Your task to perform on an android device: check android version Image 0: 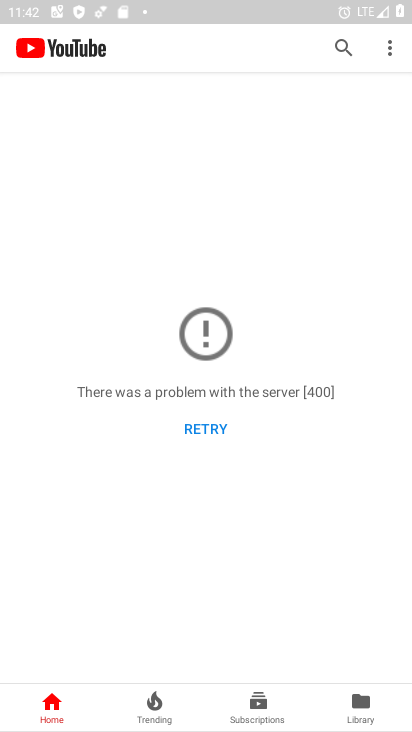
Step 0: press home button
Your task to perform on an android device: check android version Image 1: 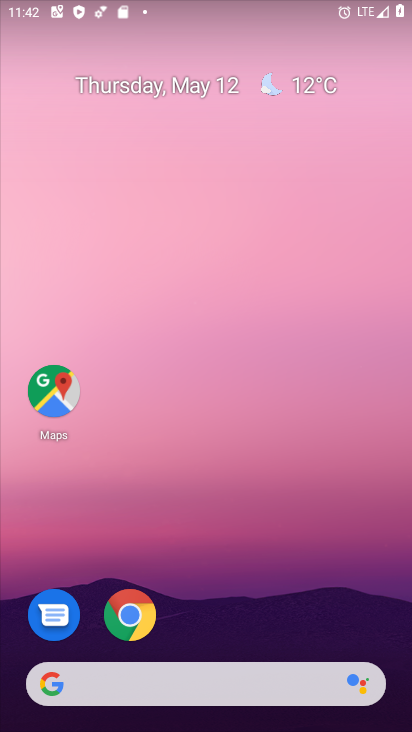
Step 1: drag from (297, 595) to (300, 103)
Your task to perform on an android device: check android version Image 2: 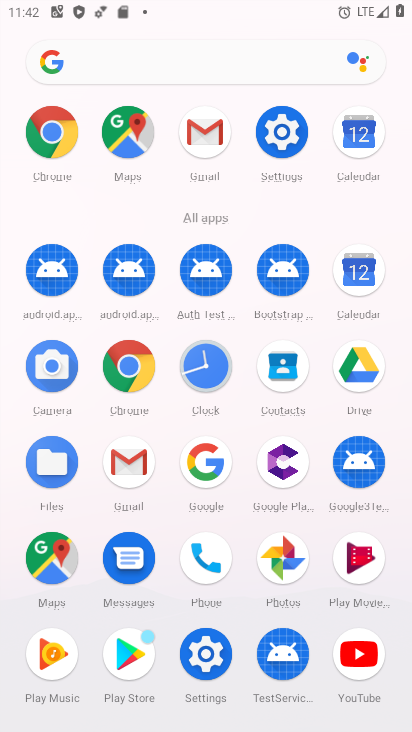
Step 2: click (286, 122)
Your task to perform on an android device: check android version Image 3: 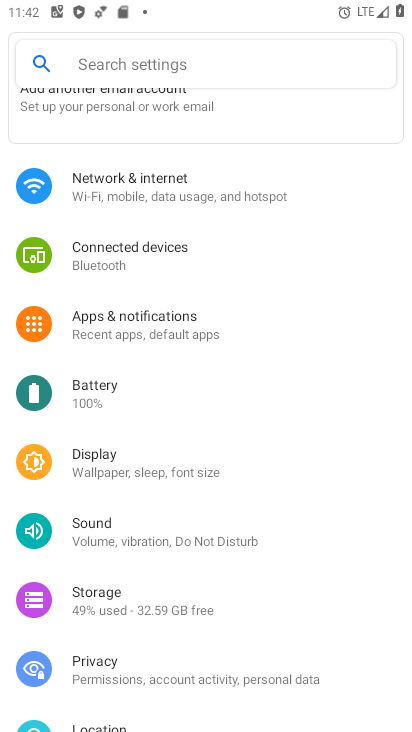
Step 3: drag from (268, 571) to (286, 0)
Your task to perform on an android device: check android version Image 4: 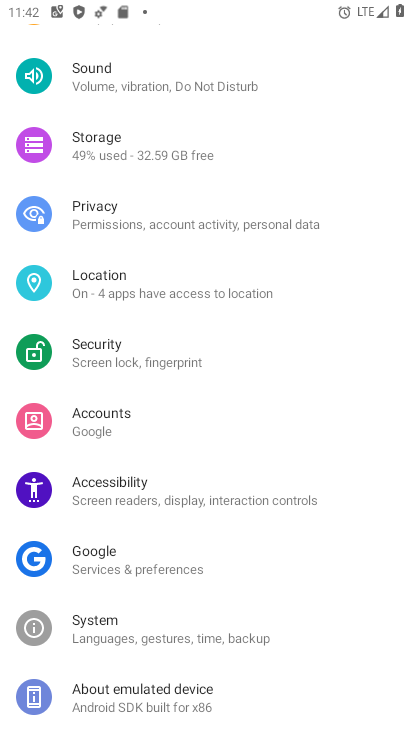
Step 4: click (171, 707)
Your task to perform on an android device: check android version Image 5: 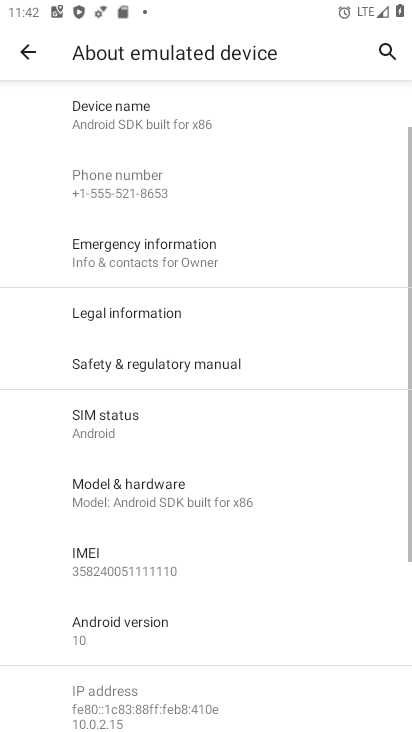
Step 5: click (149, 635)
Your task to perform on an android device: check android version Image 6: 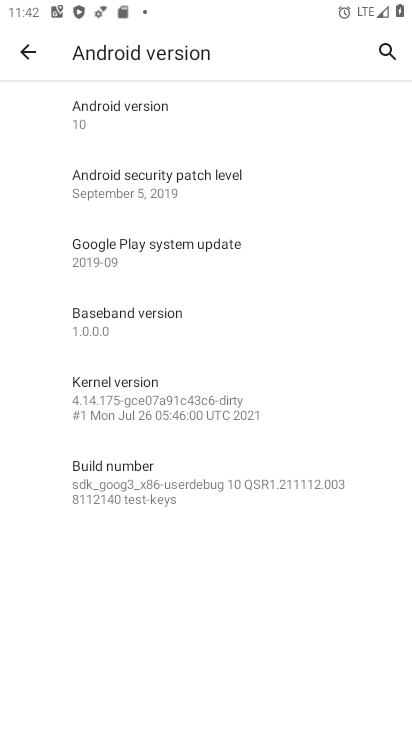
Step 6: task complete